Your task to perform on an android device: turn on sleep mode Image 0: 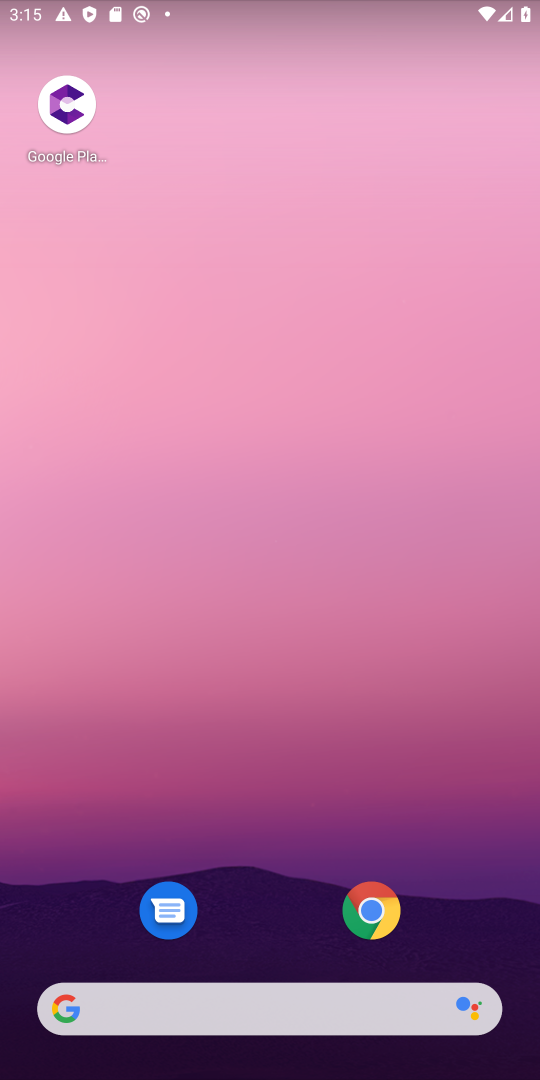
Step 0: drag from (467, 929) to (380, 264)
Your task to perform on an android device: turn on sleep mode Image 1: 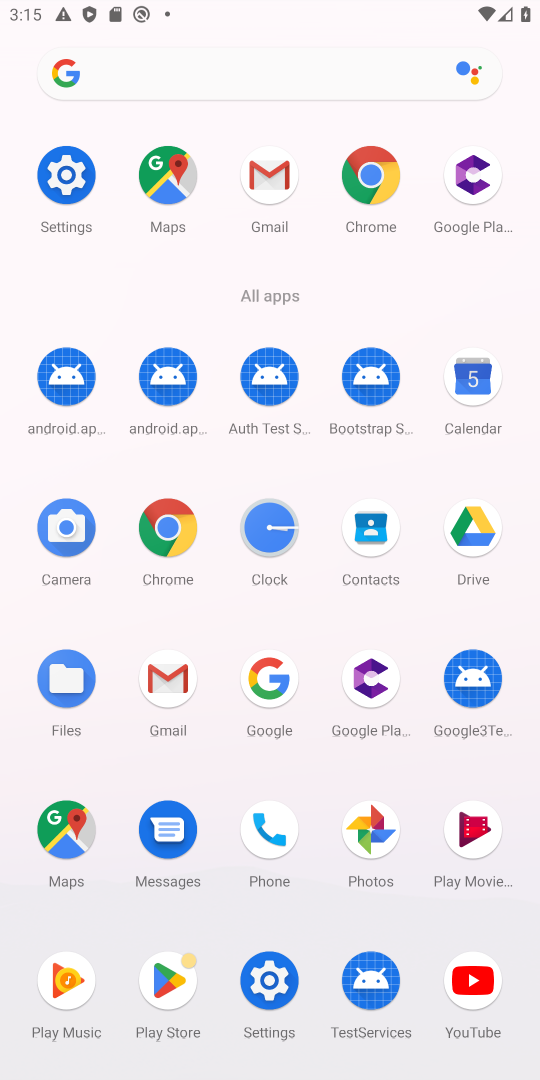
Step 1: click (73, 181)
Your task to perform on an android device: turn on sleep mode Image 2: 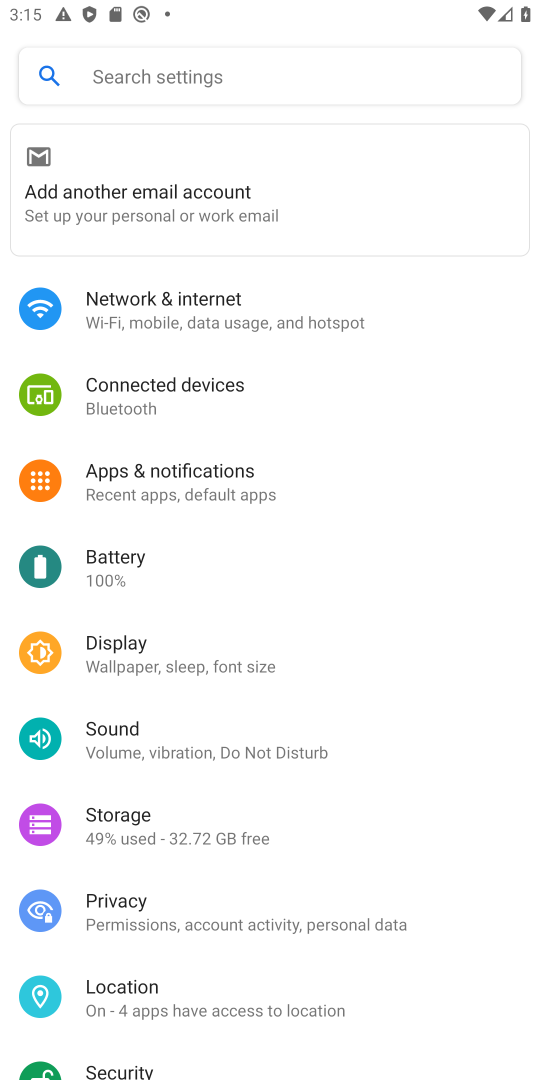
Step 2: click (264, 668)
Your task to perform on an android device: turn on sleep mode Image 3: 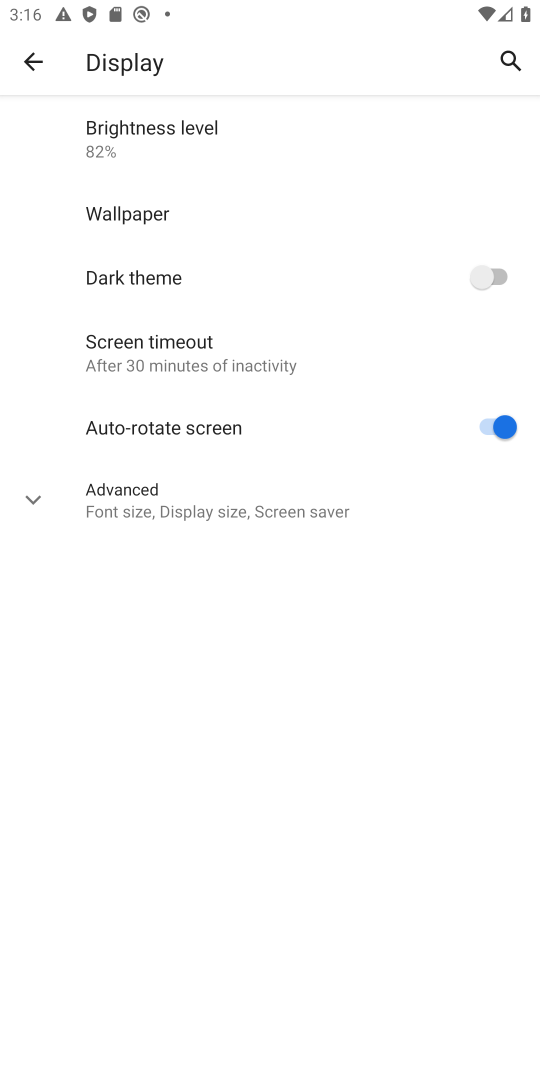
Step 3: click (285, 502)
Your task to perform on an android device: turn on sleep mode Image 4: 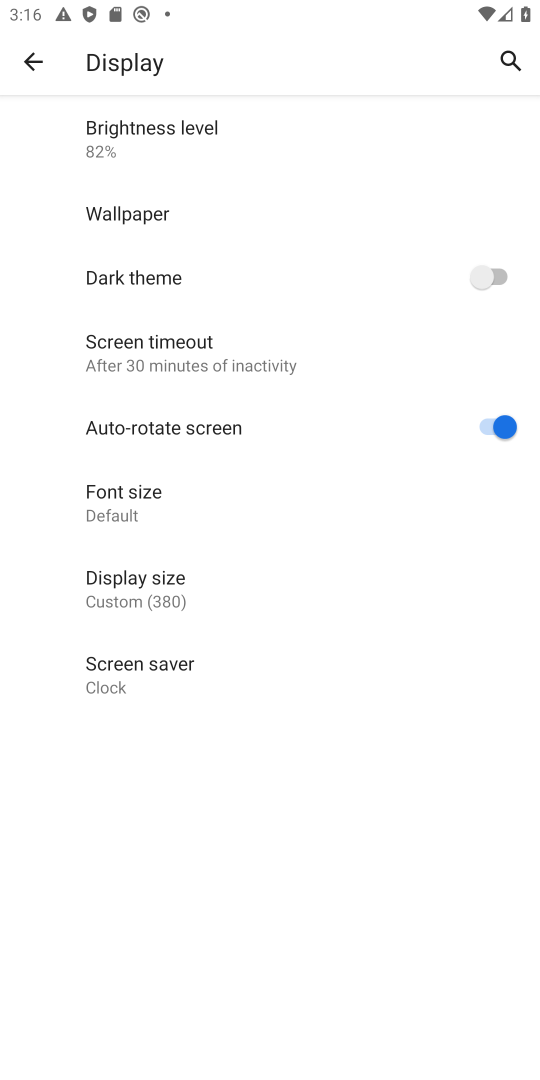
Step 4: task complete